Your task to perform on an android device: install app "Google Play Games" Image 0: 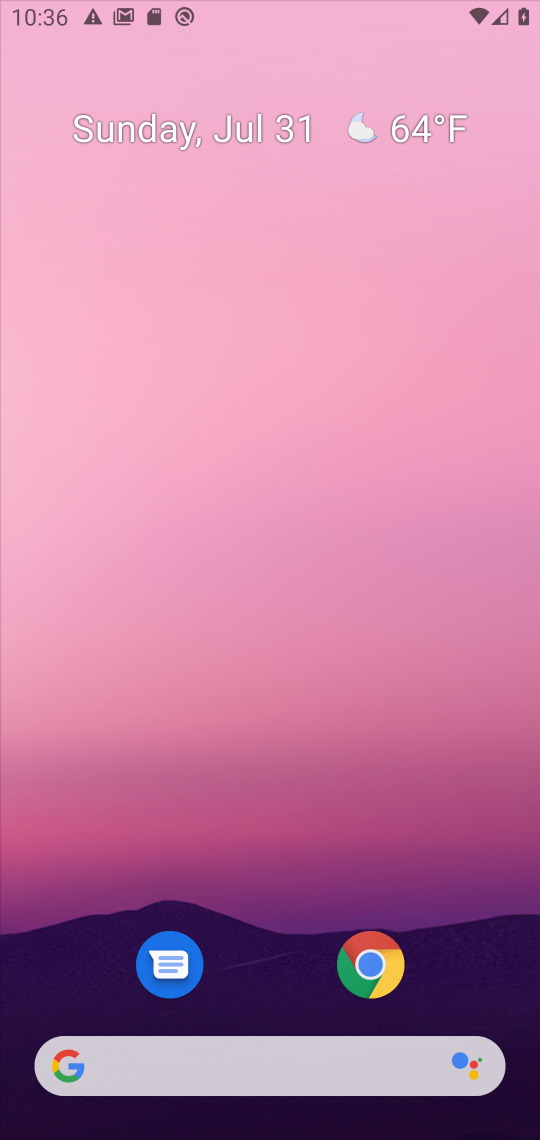
Step 0: click (226, 86)
Your task to perform on an android device: install app "Google Play Games" Image 1: 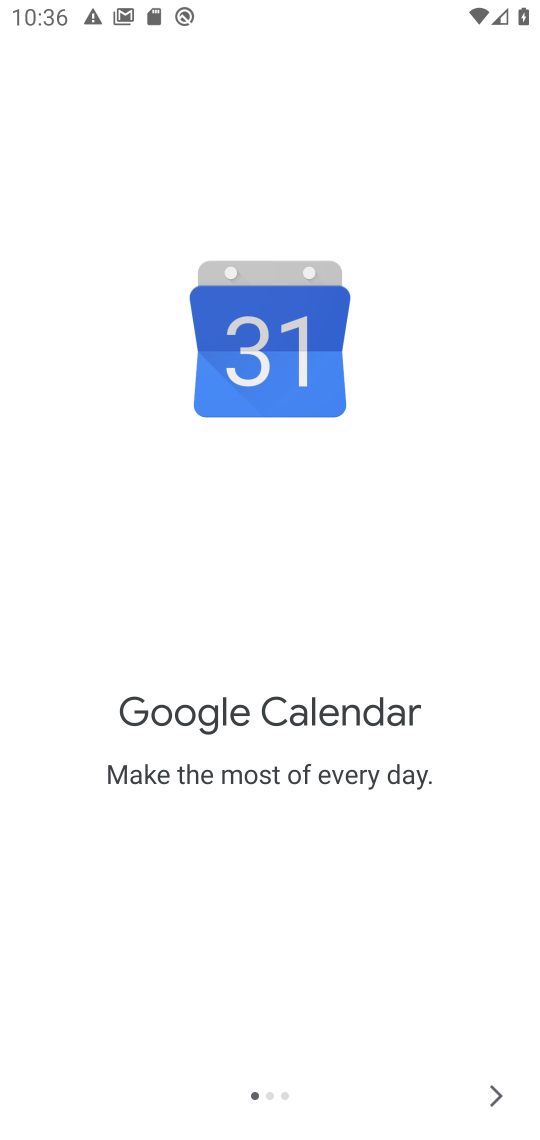
Step 1: press home button
Your task to perform on an android device: install app "Google Play Games" Image 2: 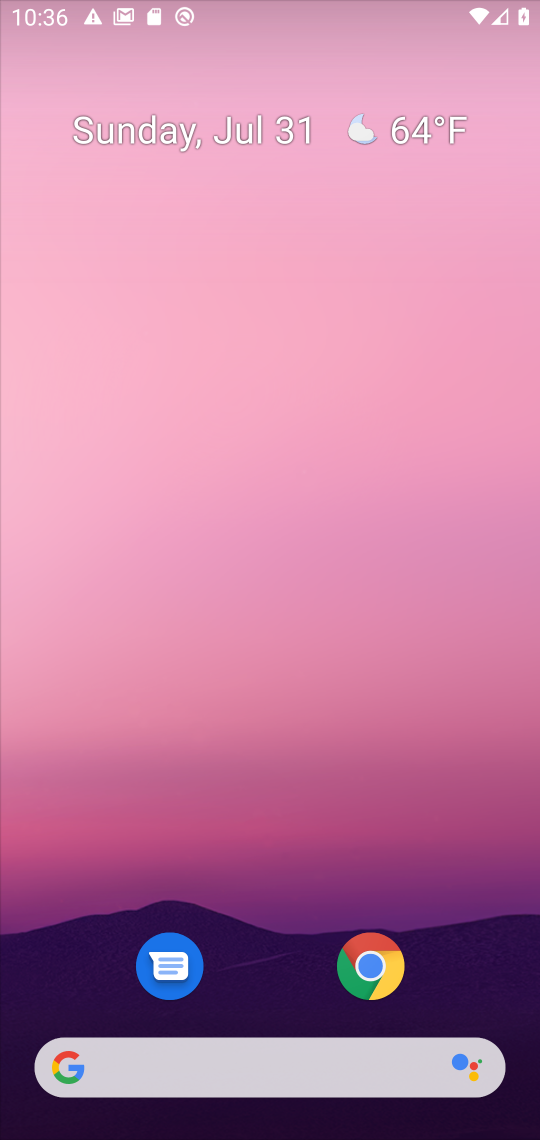
Step 2: drag from (270, 874) to (260, 26)
Your task to perform on an android device: install app "Google Play Games" Image 3: 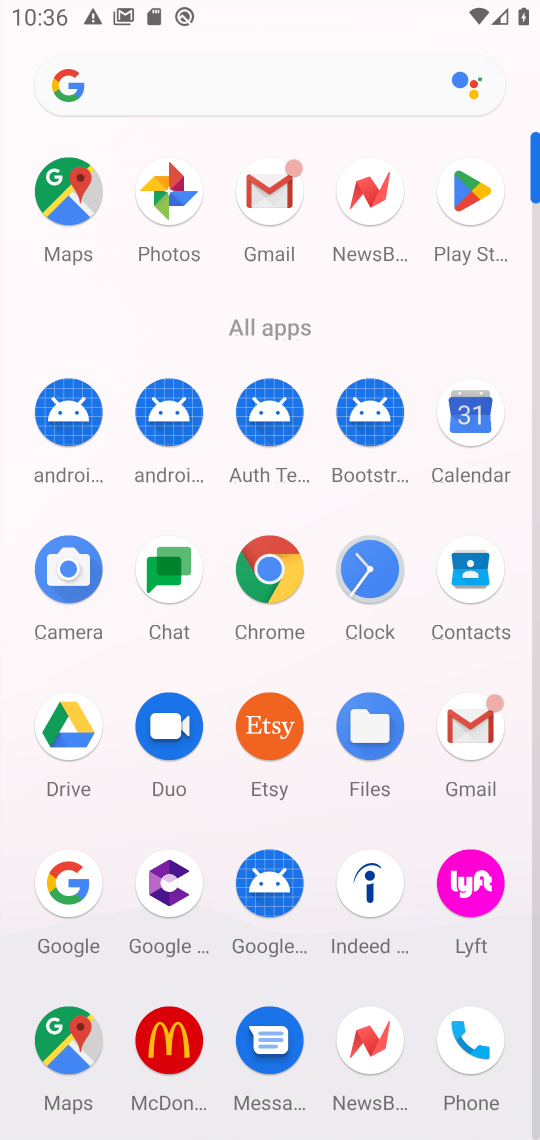
Step 3: click (480, 214)
Your task to perform on an android device: install app "Google Play Games" Image 4: 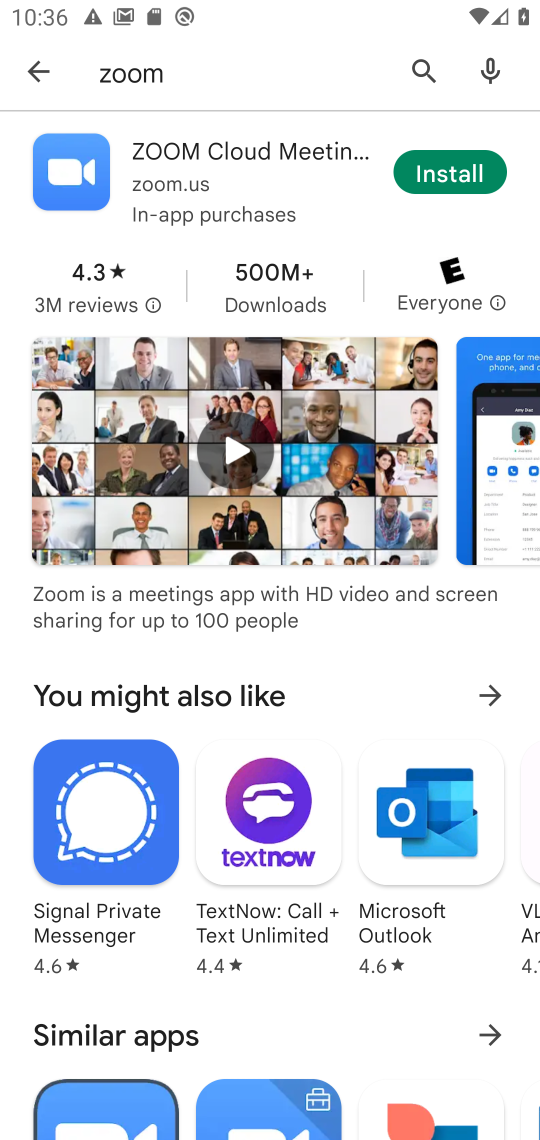
Step 4: click (163, 62)
Your task to perform on an android device: install app "Google Play Games" Image 5: 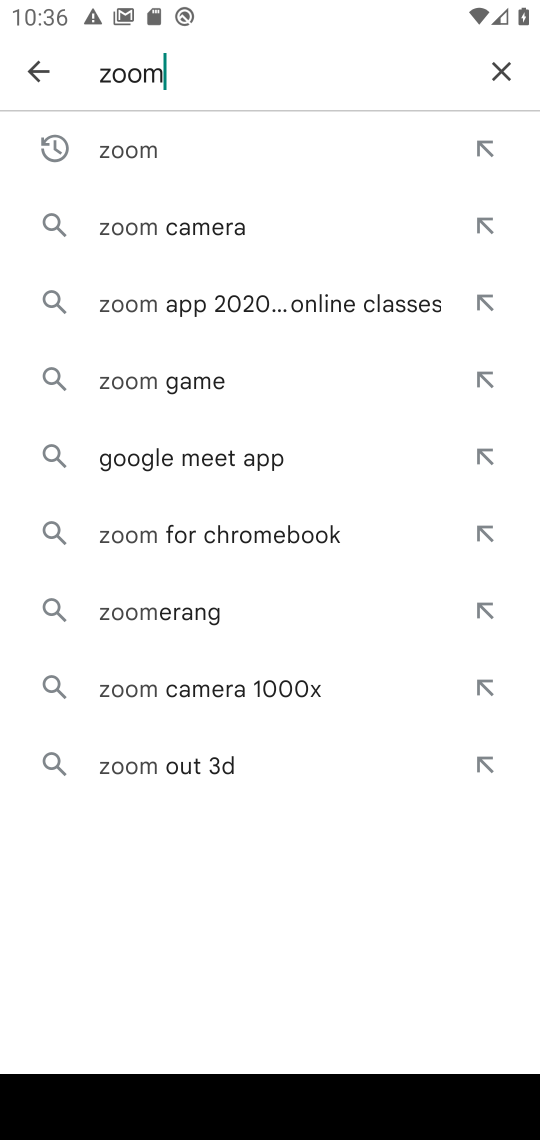
Step 5: click (499, 66)
Your task to perform on an android device: install app "Google Play Games" Image 6: 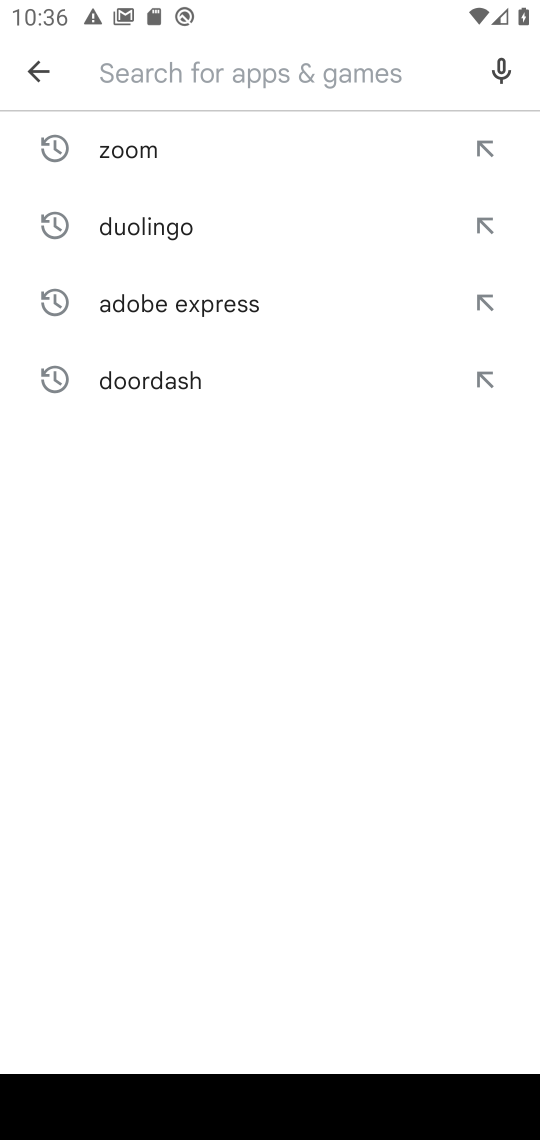
Step 6: type "google play games"
Your task to perform on an android device: install app "Google Play Games" Image 7: 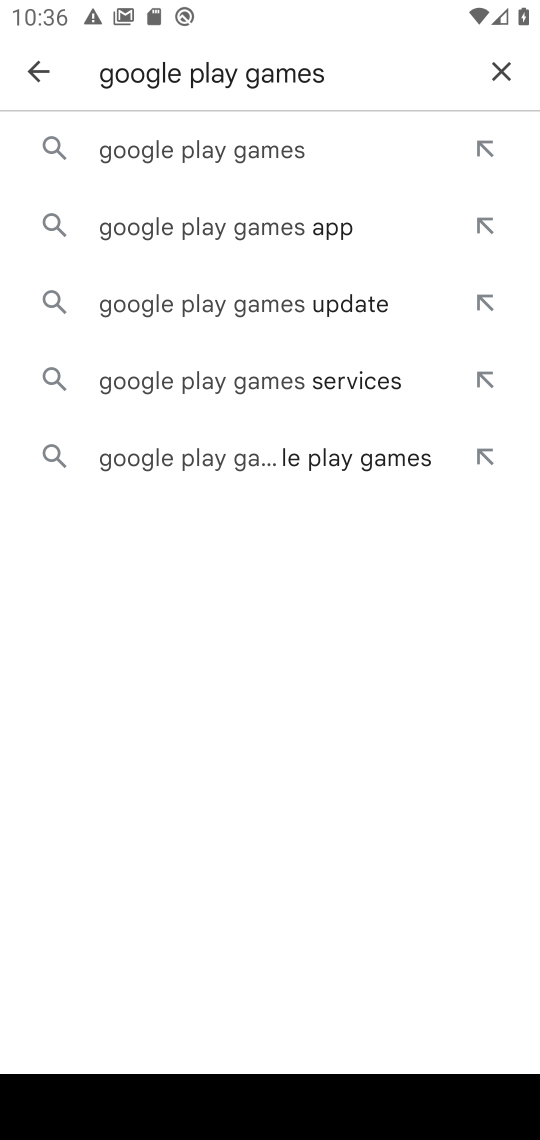
Step 7: click (260, 141)
Your task to perform on an android device: install app "Google Play Games" Image 8: 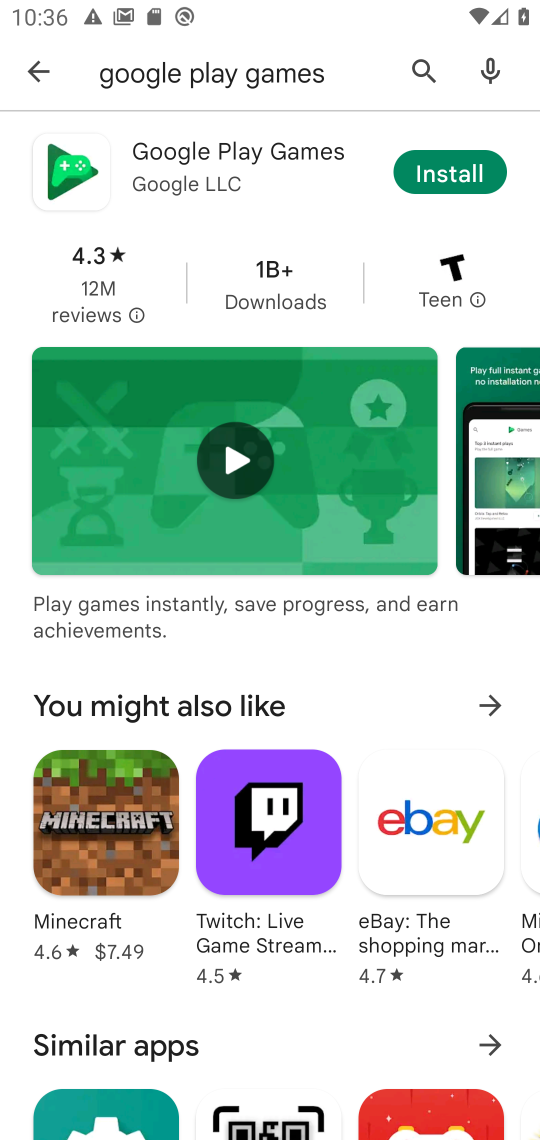
Step 8: click (426, 171)
Your task to perform on an android device: install app "Google Play Games" Image 9: 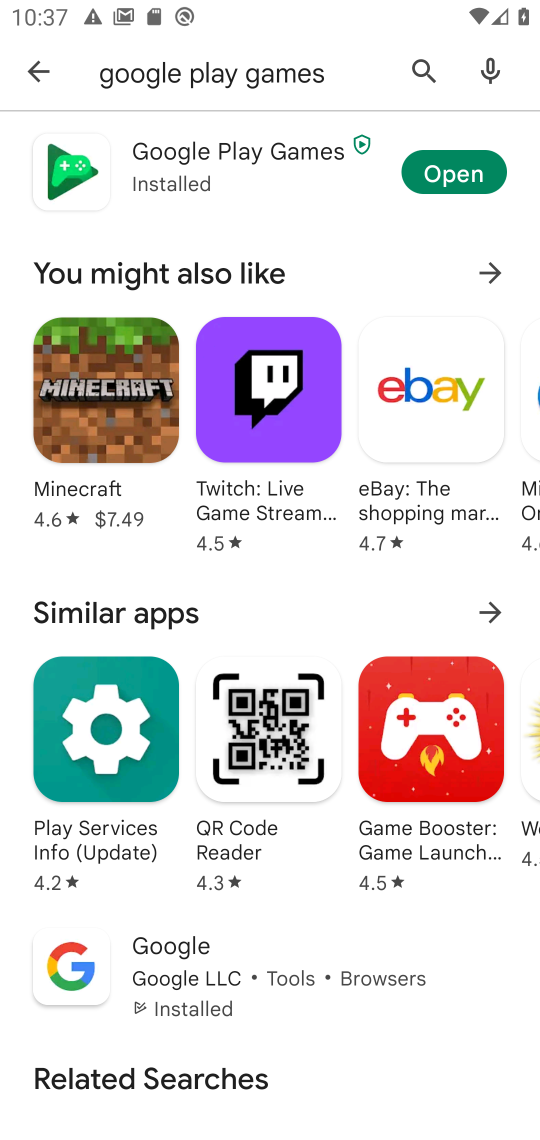
Step 9: task complete